Your task to perform on an android device: stop showing notifications on the lock screen Image 0: 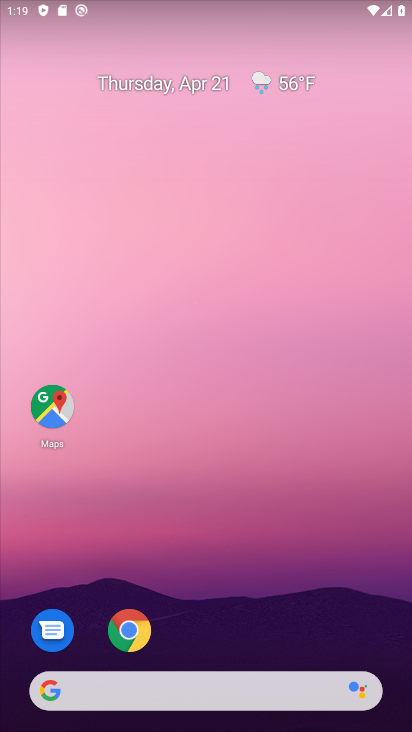
Step 0: drag from (278, 511) to (213, 86)
Your task to perform on an android device: stop showing notifications on the lock screen Image 1: 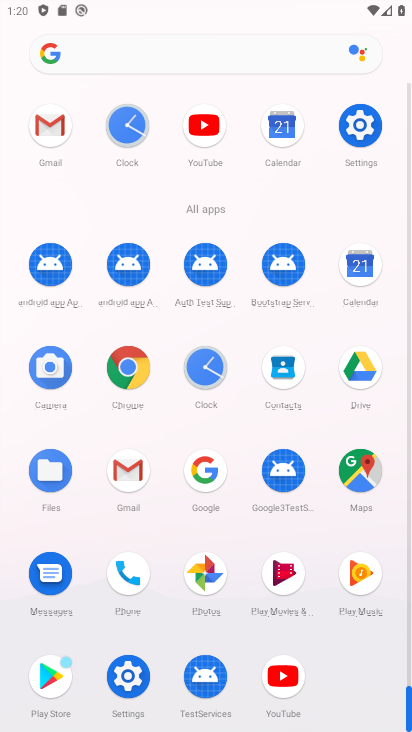
Step 1: drag from (240, 600) to (226, 385)
Your task to perform on an android device: stop showing notifications on the lock screen Image 2: 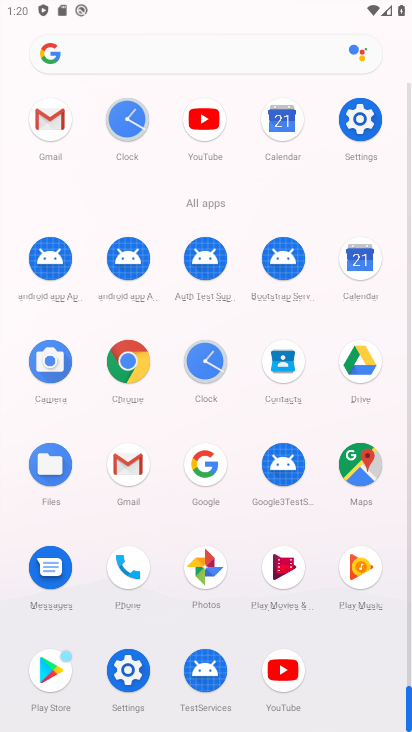
Step 2: click (138, 668)
Your task to perform on an android device: stop showing notifications on the lock screen Image 3: 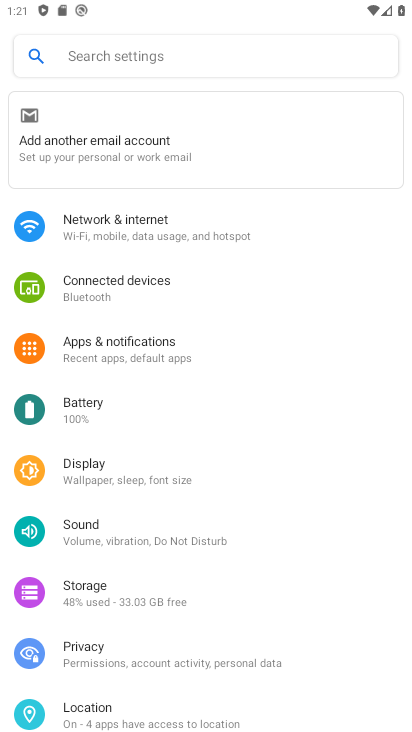
Step 3: click (109, 355)
Your task to perform on an android device: stop showing notifications on the lock screen Image 4: 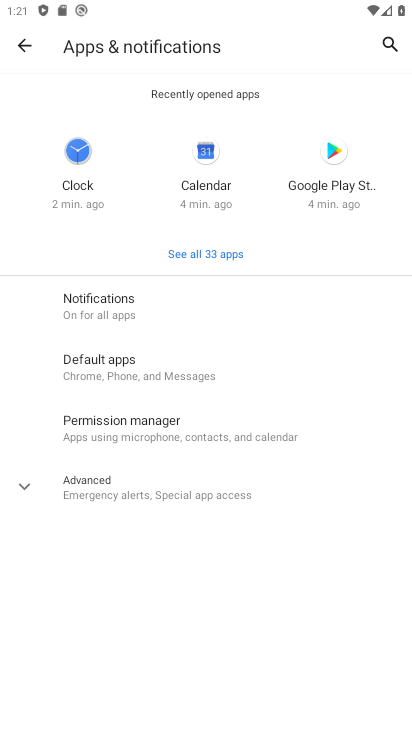
Step 4: click (115, 312)
Your task to perform on an android device: stop showing notifications on the lock screen Image 5: 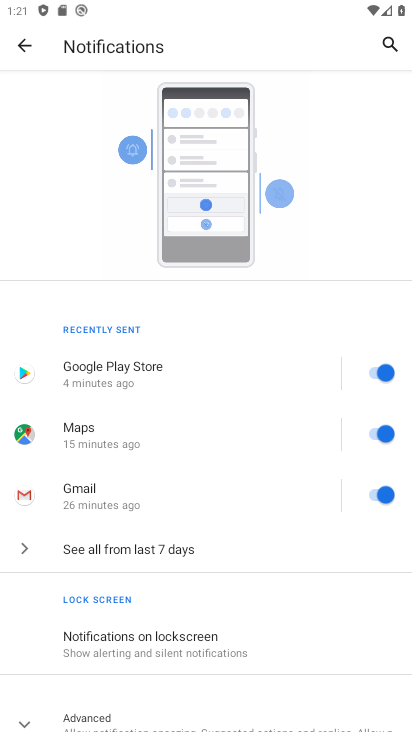
Step 5: click (122, 648)
Your task to perform on an android device: stop showing notifications on the lock screen Image 6: 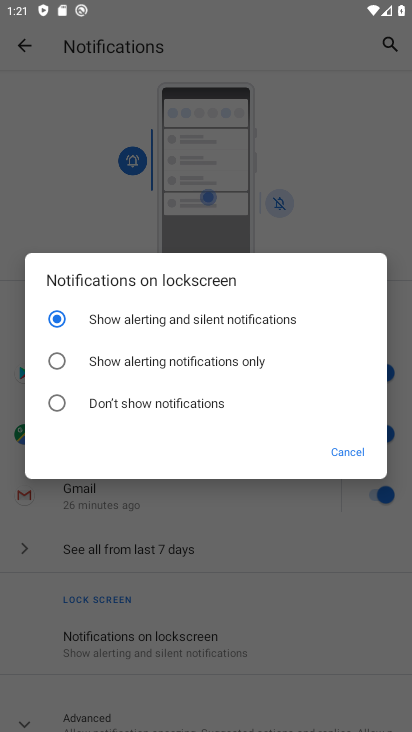
Step 6: click (132, 408)
Your task to perform on an android device: stop showing notifications on the lock screen Image 7: 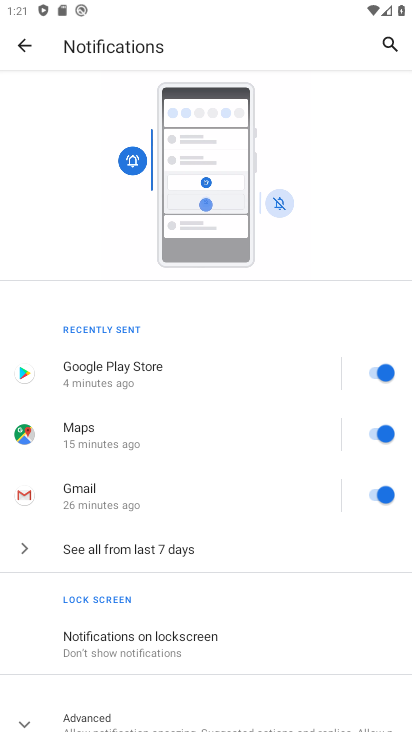
Step 7: task complete